Your task to perform on an android device: How much does a 2 bedroom apartment rent for in San Francisco? Image 0: 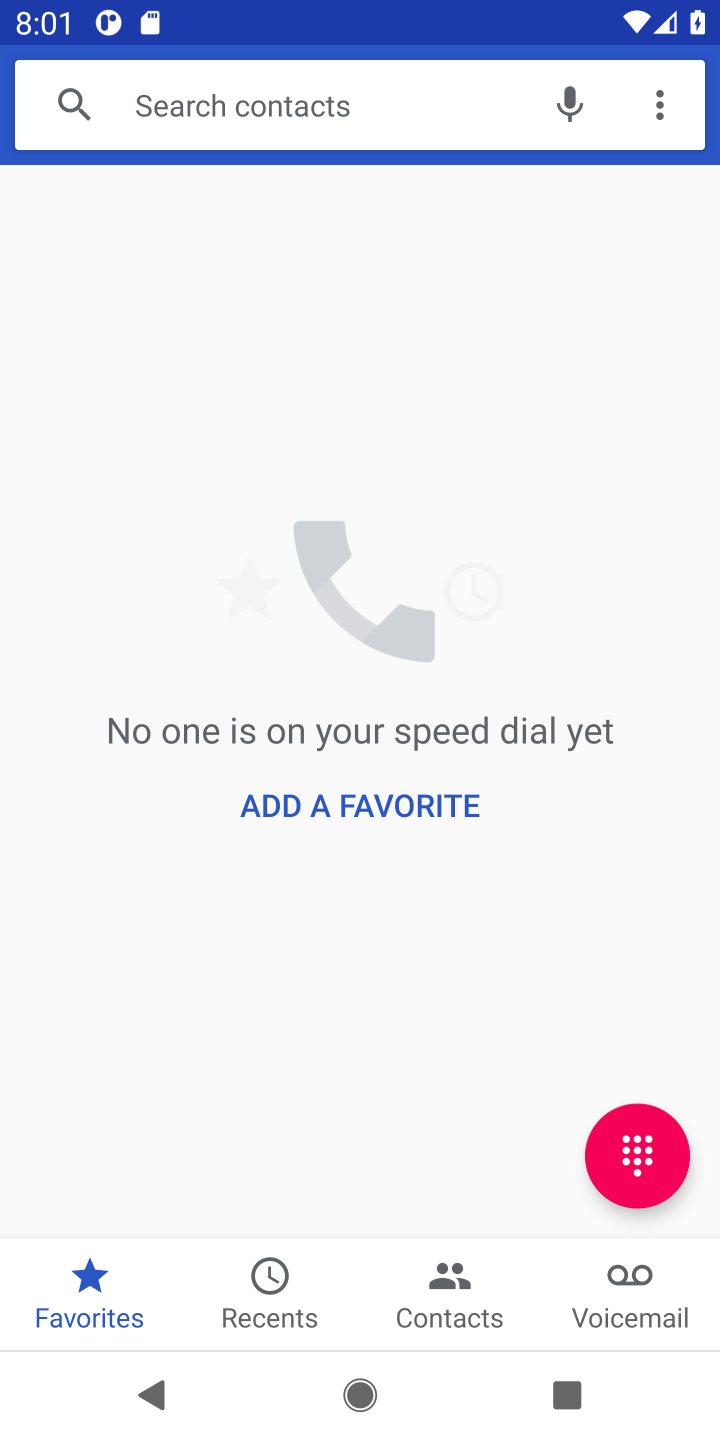
Step 0: press home button
Your task to perform on an android device: How much does a 2 bedroom apartment rent for in San Francisco? Image 1: 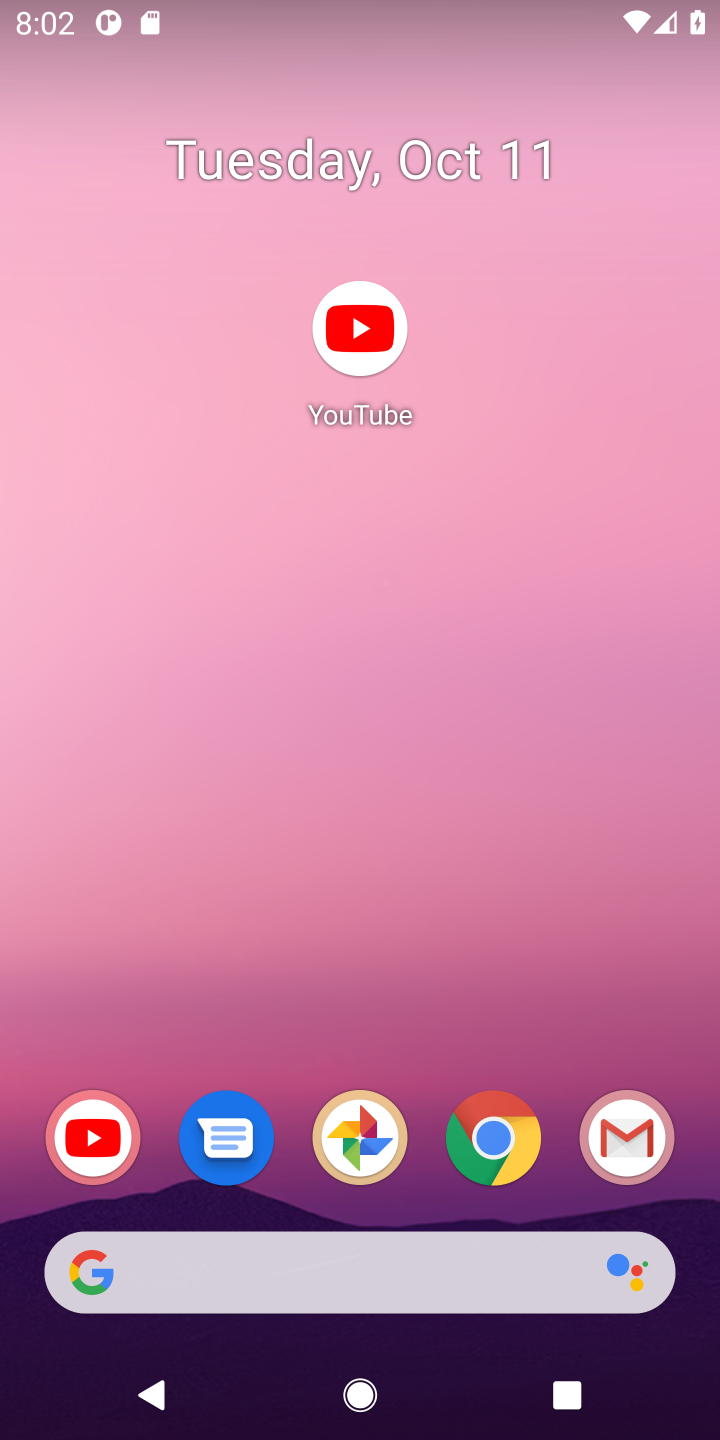
Step 1: click (337, 1263)
Your task to perform on an android device: How much does a 2 bedroom apartment rent for in San Francisco? Image 2: 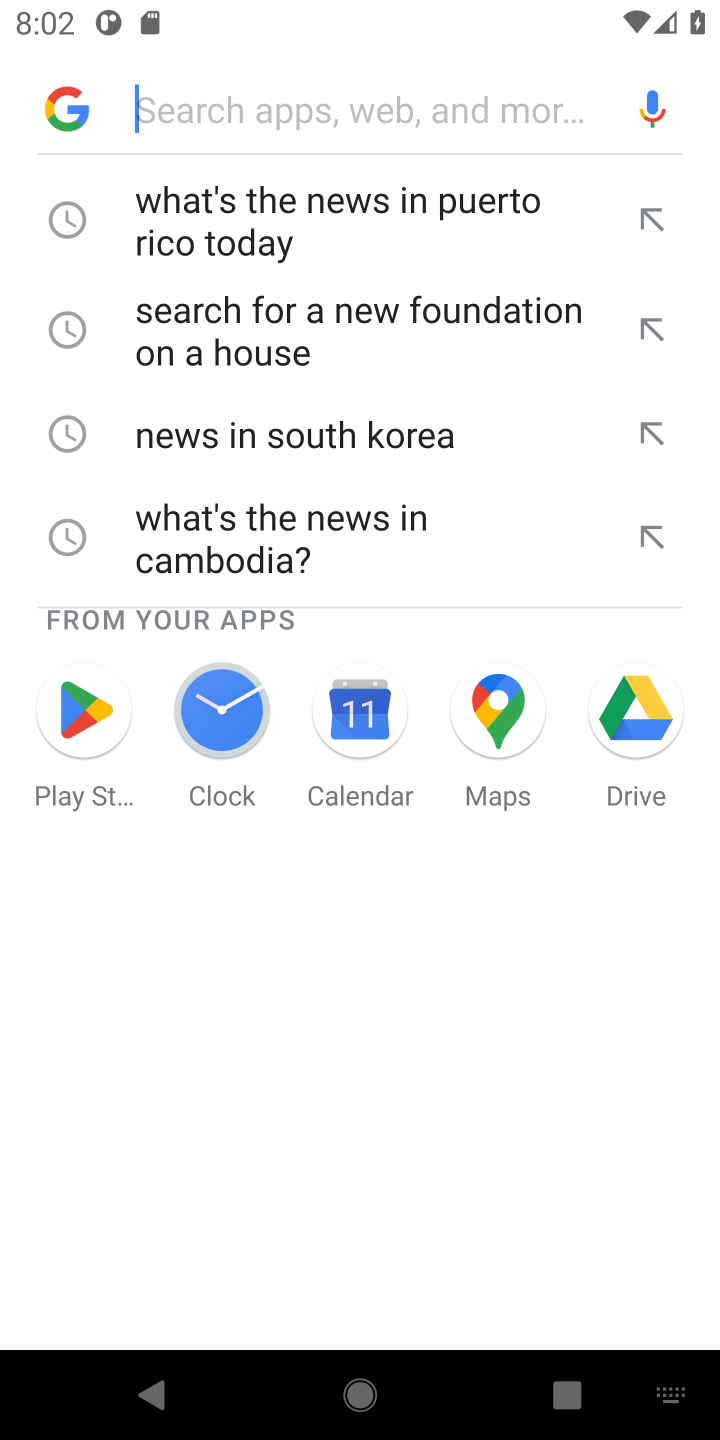
Step 2: type "How much does a 2 bedroom apartment rent for in San Francisco?"
Your task to perform on an android device: How much does a 2 bedroom apartment rent for in San Francisco? Image 3: 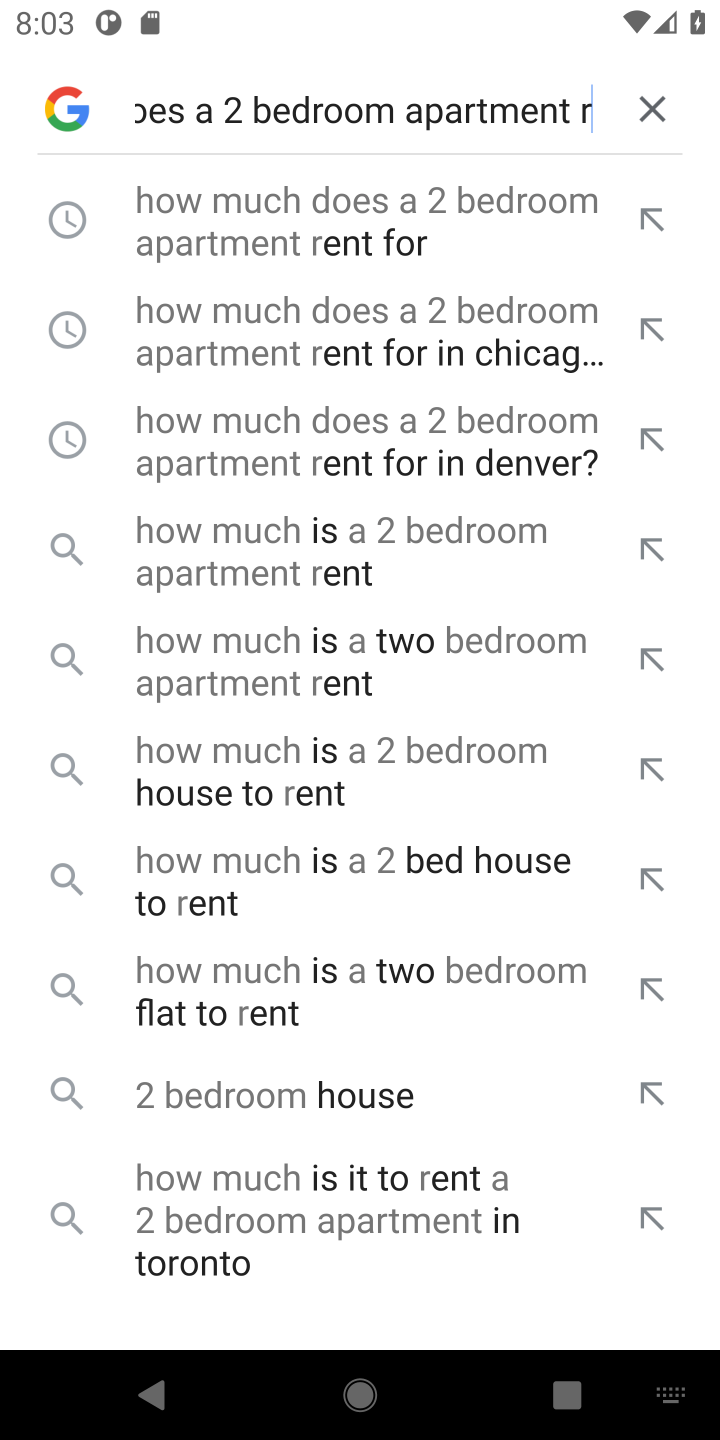
Step 3: click (360, 226)
Your task to perform on an android device: How much does a 2 bedroom apartment rent for in San Francisco? Image 4: 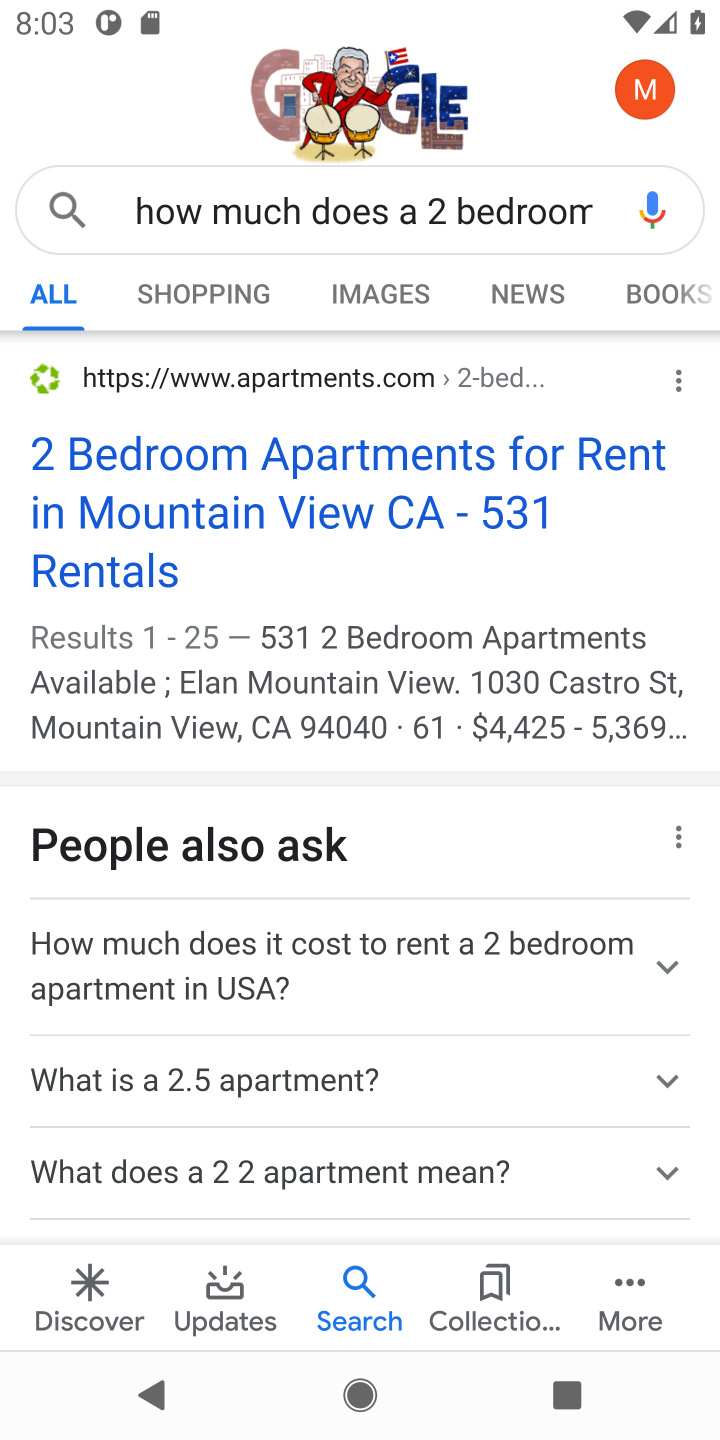
Step 4: task complete